Your task to perform on an android device: change the clock display to analog Image 0: 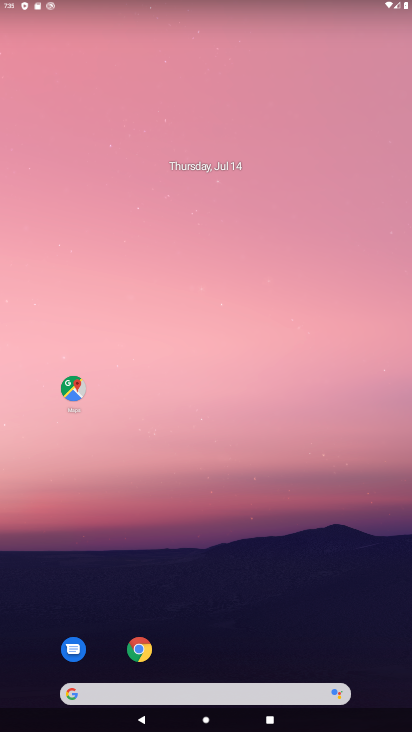
Step 0: drag from (206, 616) to (208, 2)
Your task to perform on an android device: change the clock display to analog Image 1: 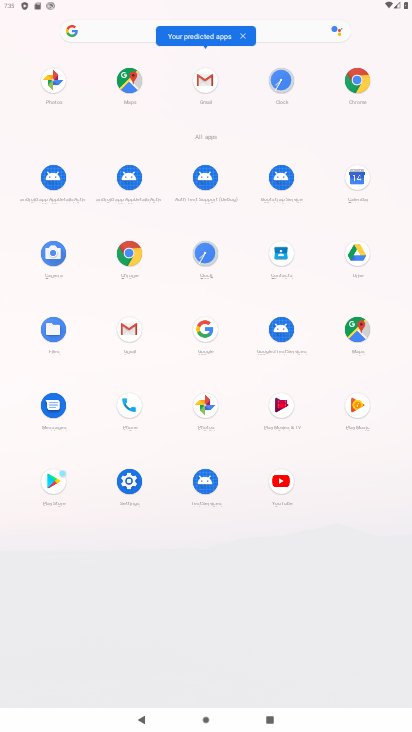
Step 1: click (205, 259)
Your task to perform on an android device: change the clock display to analog Image 2: 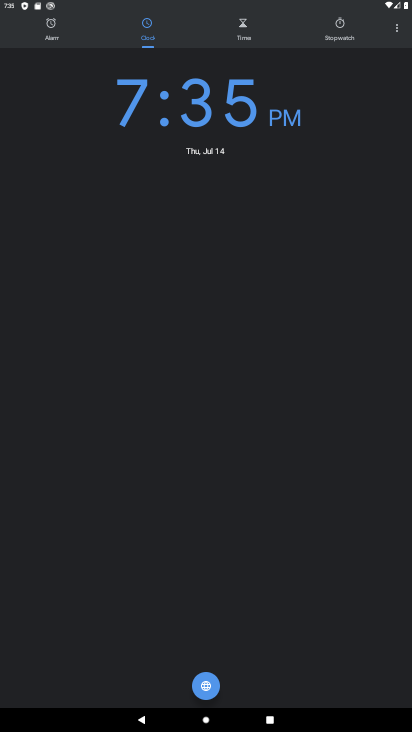
Step 2: click (398, 31)
Your task to perform on an android device: change the clock display to analog Image 3: 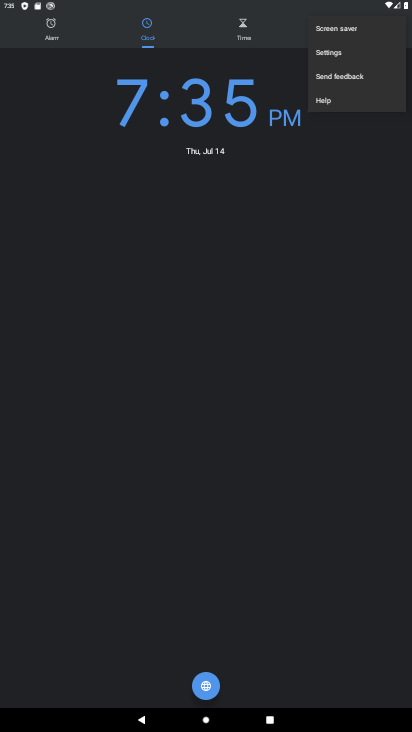
Step 3: click (345, 59)
Your task to perform on an android device: change the clock display to analog Image 4: 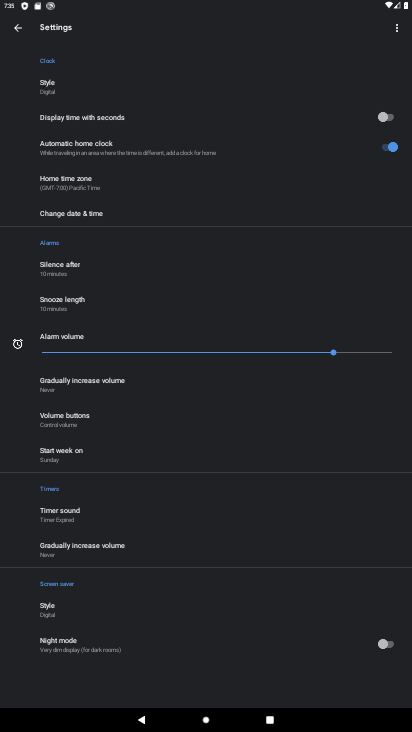
Step 4: click (59, 90)
Your task to perform on an android device: change the clock display to analog Image 5: 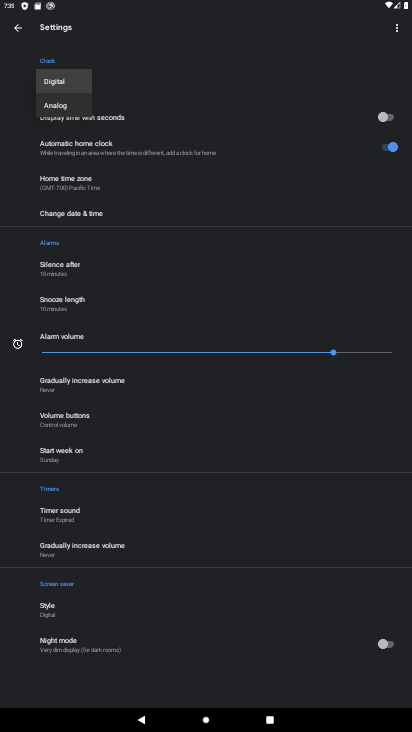
Step 5: click (66, 107)
Your task to perform on an android device: change the clock display to analog Image 6: 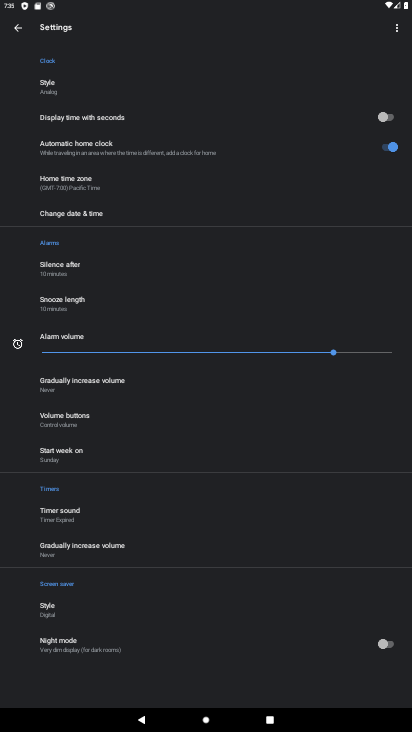
Step 6: task complete